Your task to perform on an android device: clear history in the chrome app Image 0: 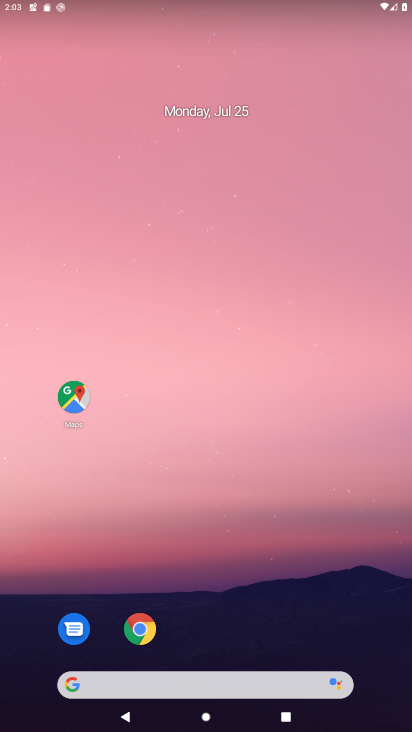
Step 0: drag from (286, 625) to (91, 0)
Your task to perform on an android device: clear history in the chrome app Image 1: 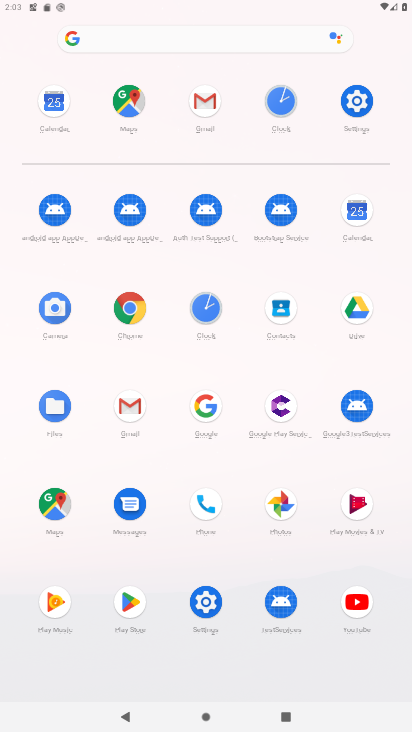
Step 1: click (137, 316)
Your task to perform on an android device: clear history in the chrome app Image 2: 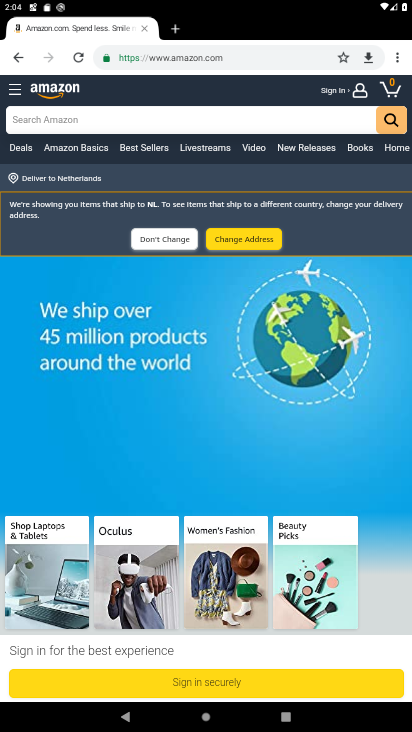
Step 2: drag from (393, 69) to (293, 172)
Your task to perform on an android device: clear history in the chrome app Image 3: 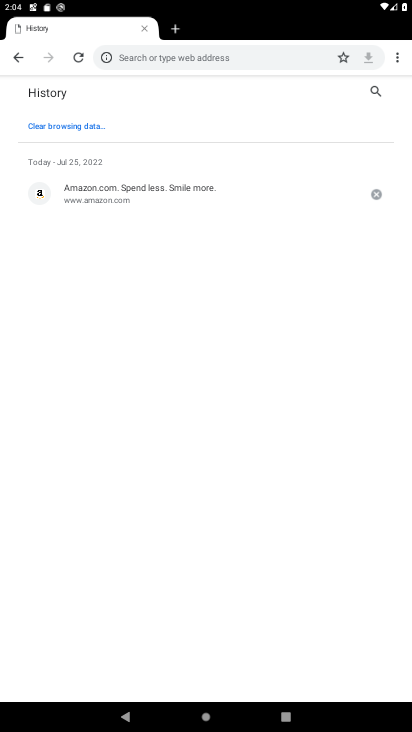
Step 3: click (76, 129)
Your task to perform on an android device: clear history in the chrome app Image 4: 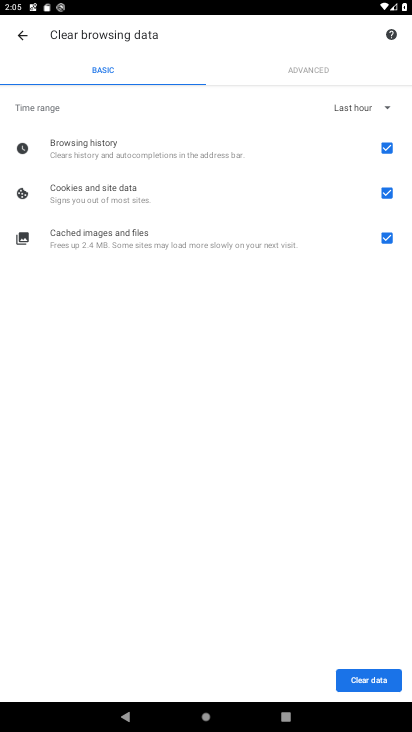
Step 4: click (383, 177)
Your task to perform on an android device: clear history in the chrome app Image 5: 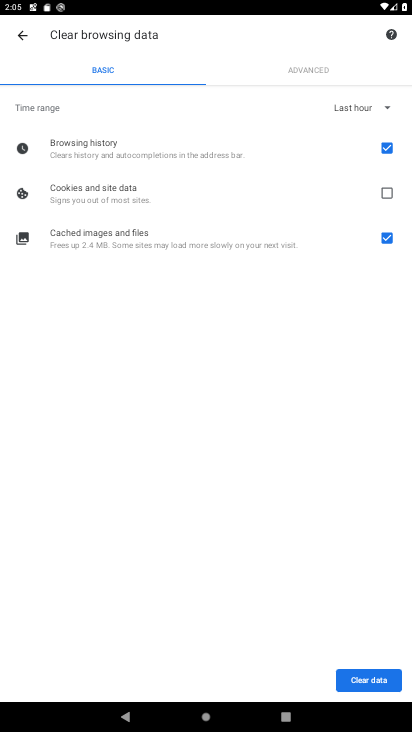
Step 5: click (391, 242)
Your task to perform on an android device: clear history in the chrome app Image 6: 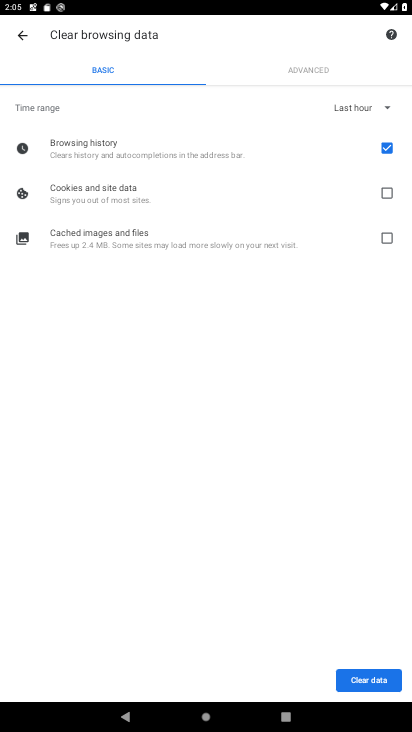
Step 6: click (353, 682)
Your task to perform on an android device: clear history in the chrome app Image 7: 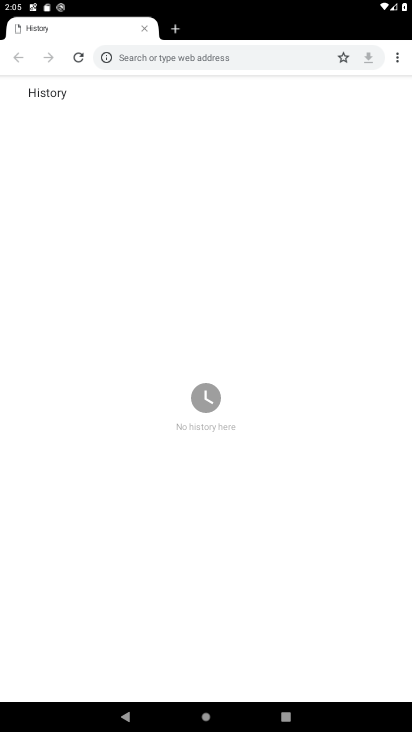
Step 7: task complete